Your task to perform on an android device: Go to sound settings Image 0: 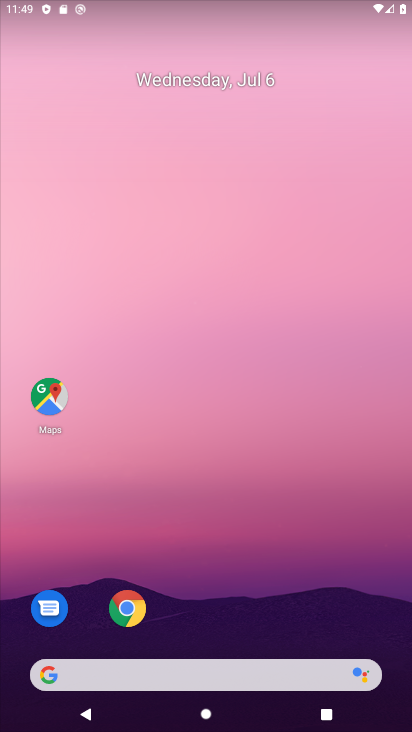
Step 0: drag from (294, 566) to (362, 76)
Your task to perform on an android device: Go to sound settings Image 1: 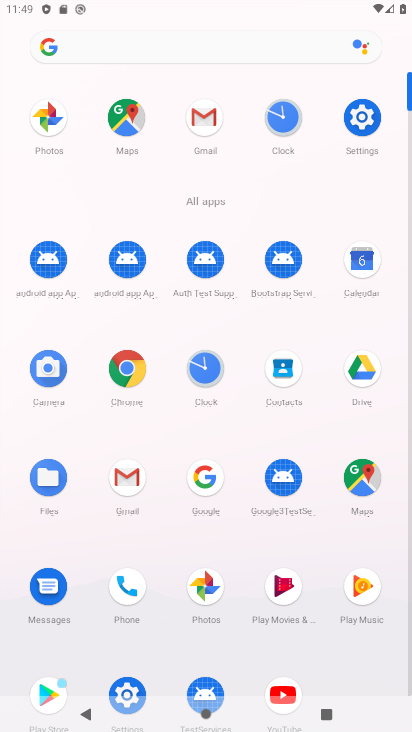
Step 1: click (365, 109)
Your task to perform on an android device: Go to sound settings Image 2: 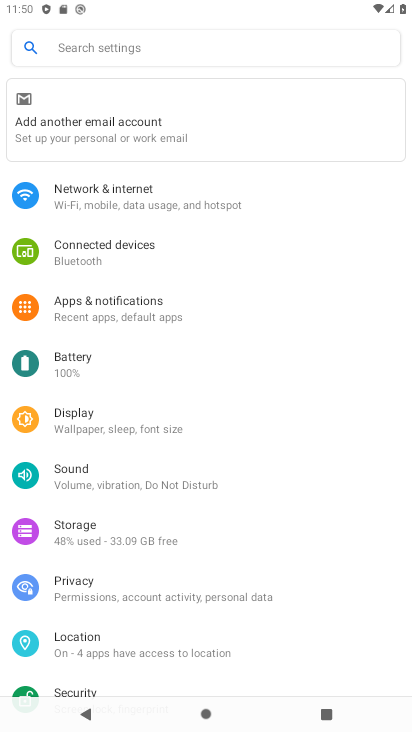
Step 2: click (93, 473)
Your task to perform on an android device: Go to sound settings Image 3: 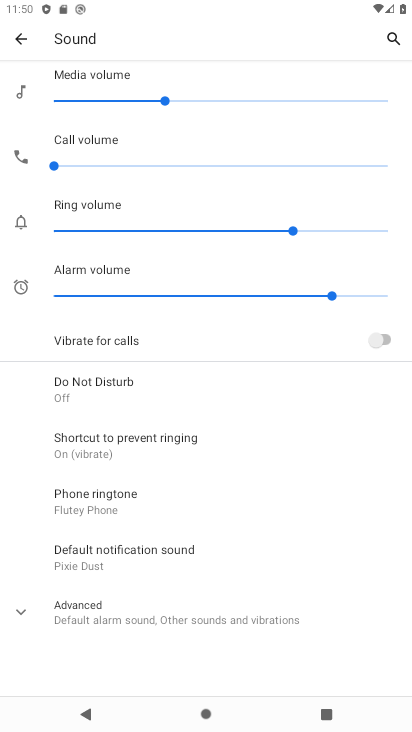
Step 3: task complete